Your task to perform on an android device: Clear the shopping cart on target. Search for "beats solo 3" on target, select the first entry, add it to the cart, then select checkout. Image 0: 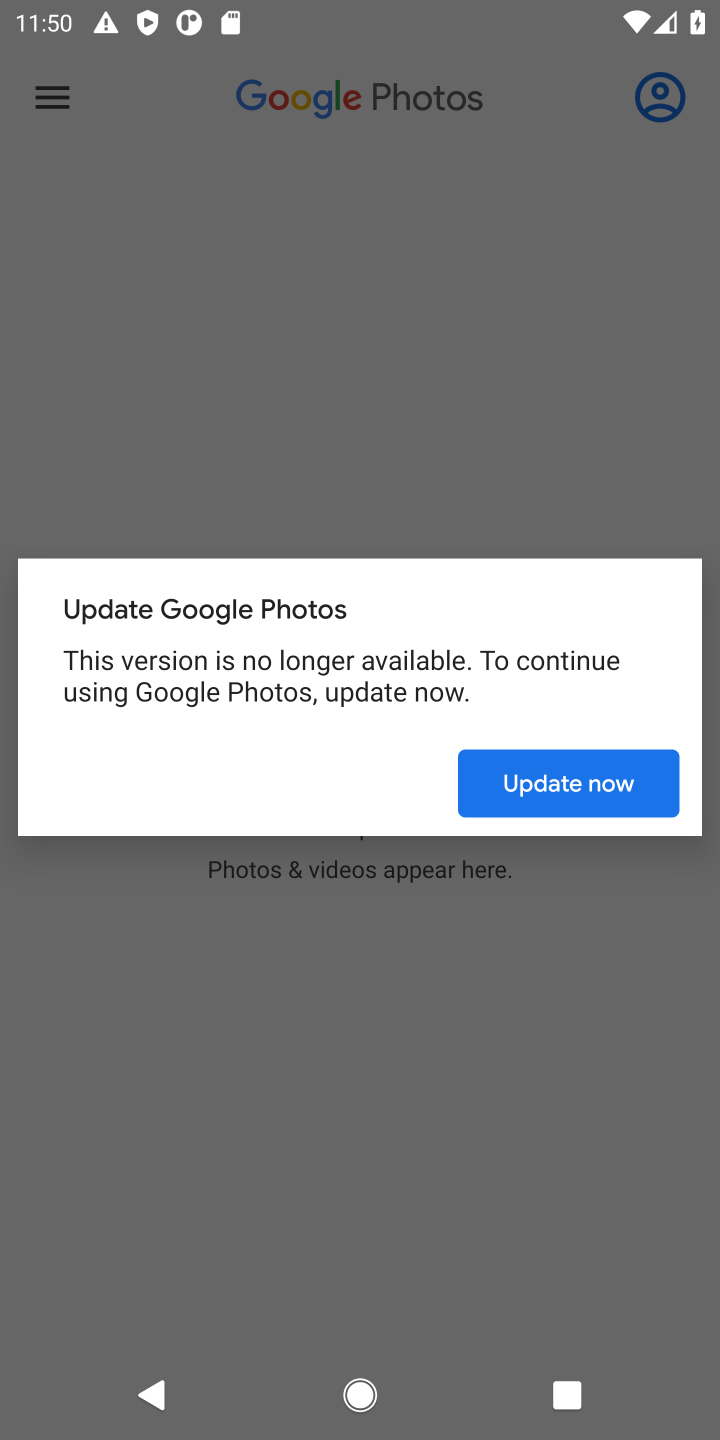
Step 0: press home button
Your task to perform on an android device: Clear the shopping cart on target. Search for "beats solo 3" on target, select the first entry, add it to the cart, then select checkout. Image 1: 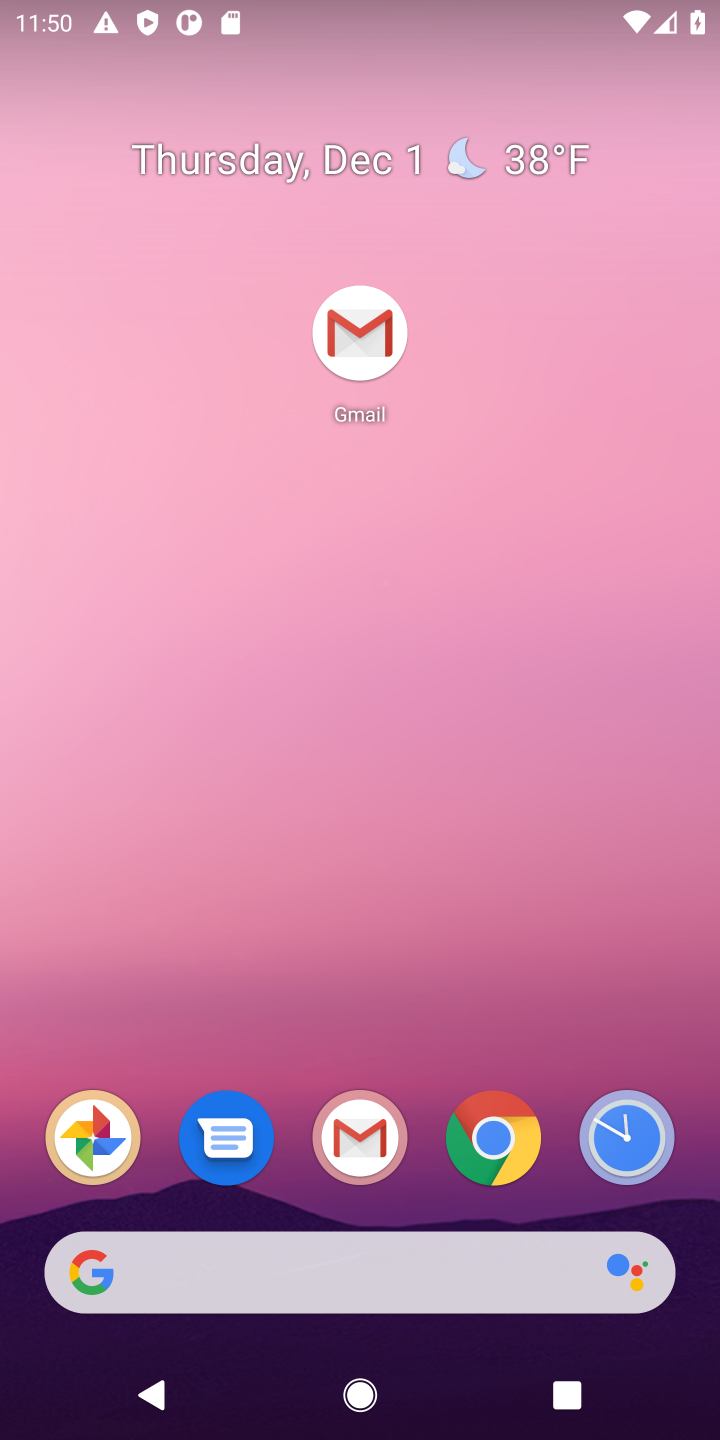
Step 1: drag from (339, 1217) to (398, 549)
Your task to perform on an android device: Clear the shopping cart on target. Search for "beats solo 3" on target, select the first entry, add it to the cart, then select checkout. Image 2: 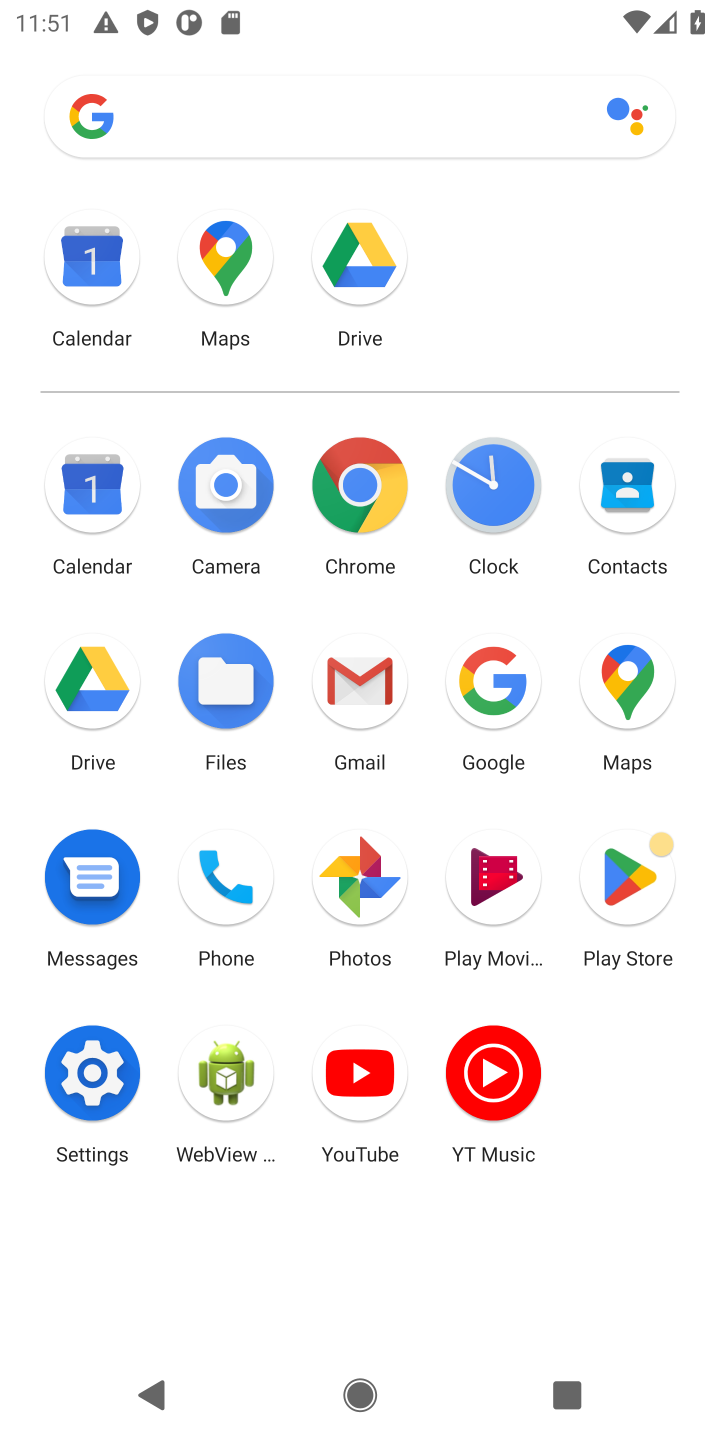
Step 2: click (497, 714)
Your task to perform on an android device: Clear the shopping cart on target. Search for "beats solo 3" on target, select the first entry, add it to the cart, then select checkout. Image 3: 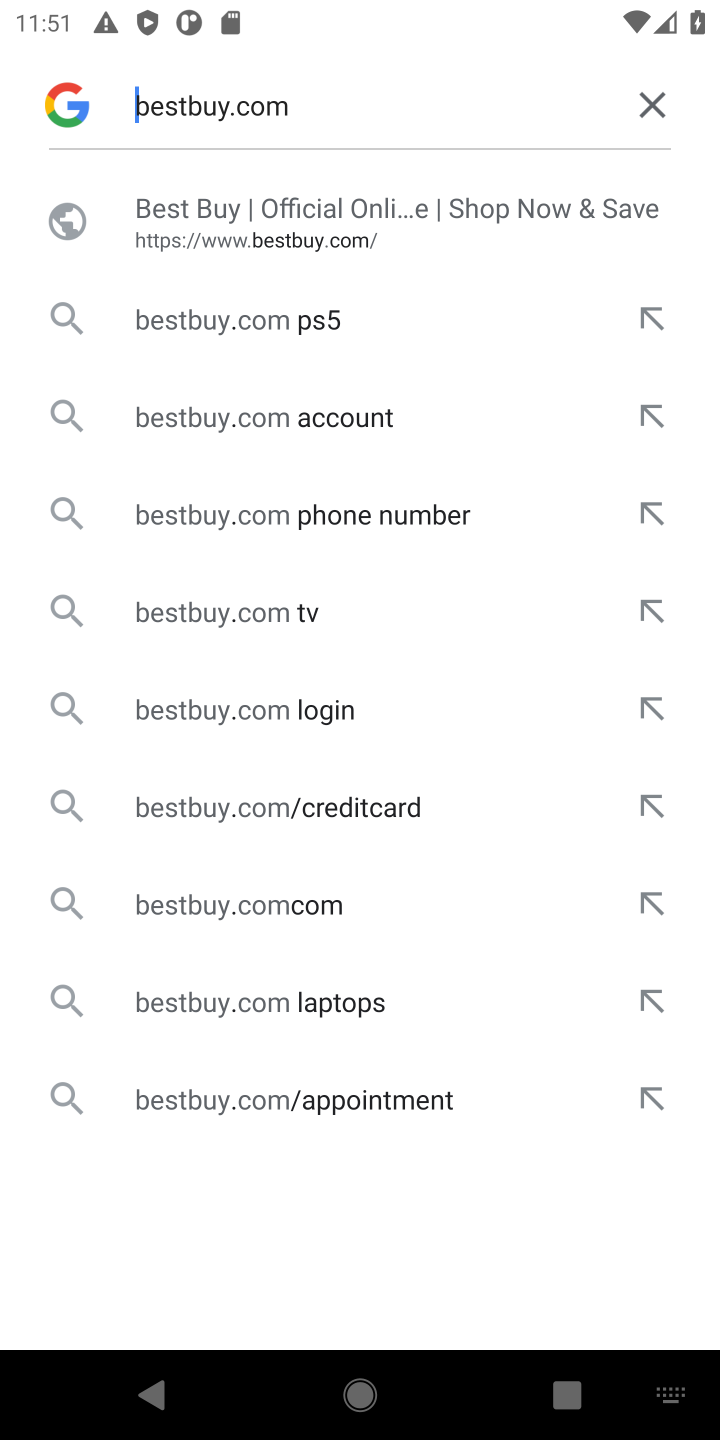
Step 3: click (704, 142)
Your task to perform on an android device: Clear the shopping cart on target. Search for "beats solo 3" on target, select the first entry, add it to the cart, then select checkout. Image 4: 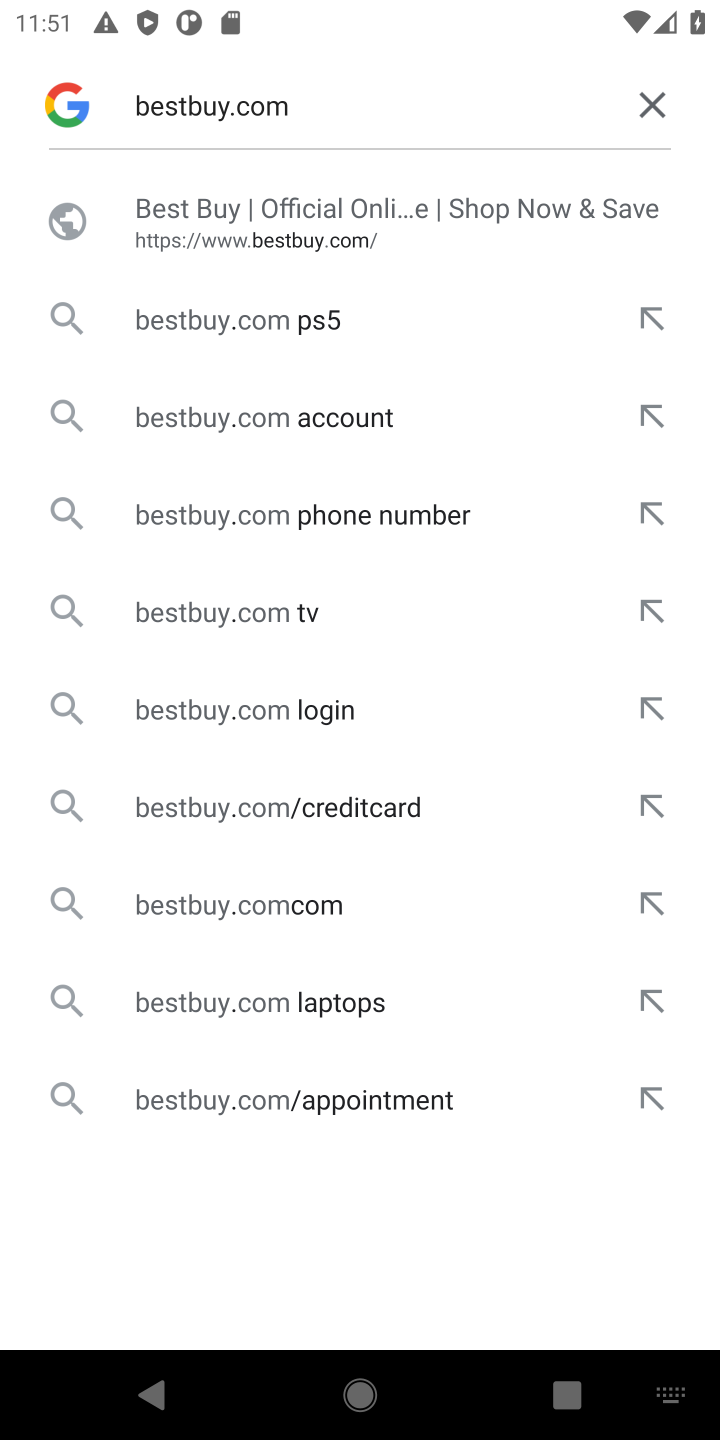
Step 4: click (665, 110)
Your task to perform on an android device: Clear the shopping cart on target. Search for "beats solo 3" on target, select the first entry, add it to the cart, then select checkout. Image 5: 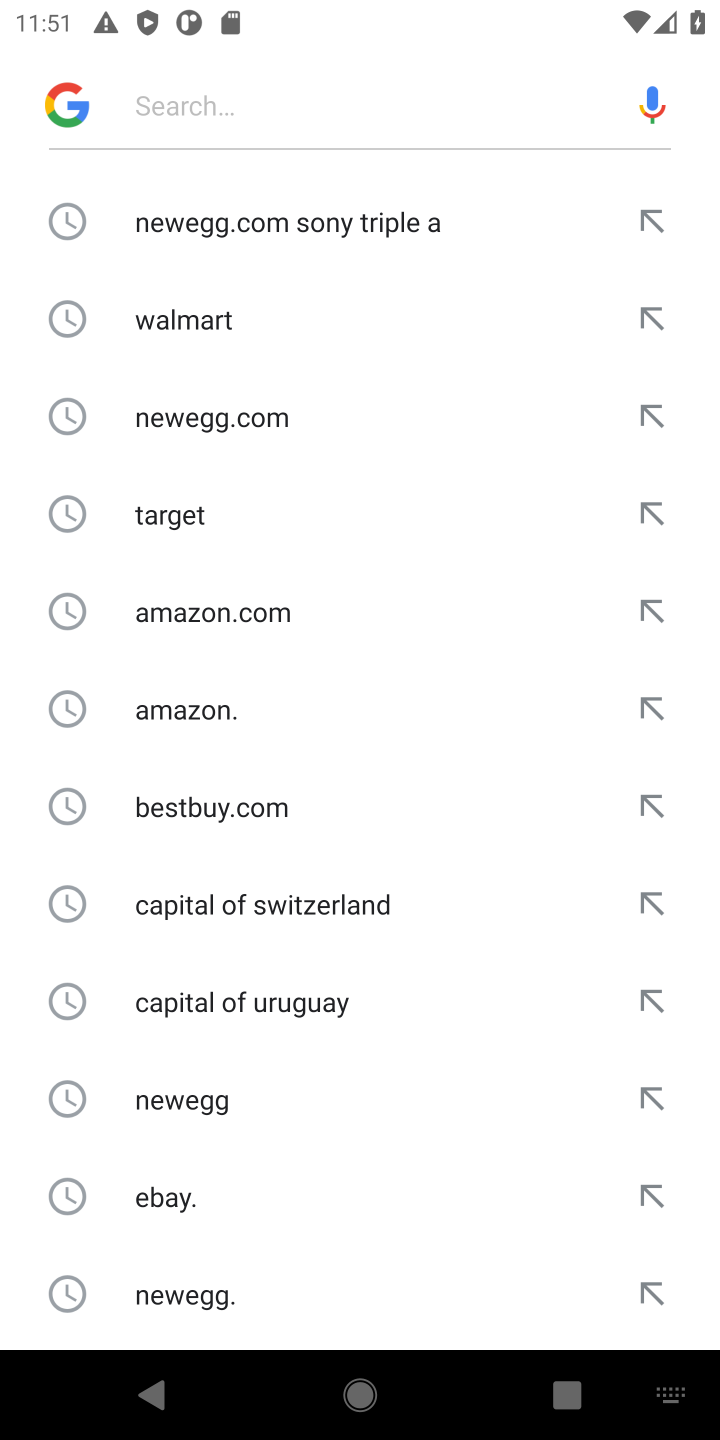
Step 5: click (195, 518)
Your task to perform on an android device: Clear the shopping cart on target. Search for "beats solo 3" on target, select the first entry, add it to the cart, then select checkout. Image 6: 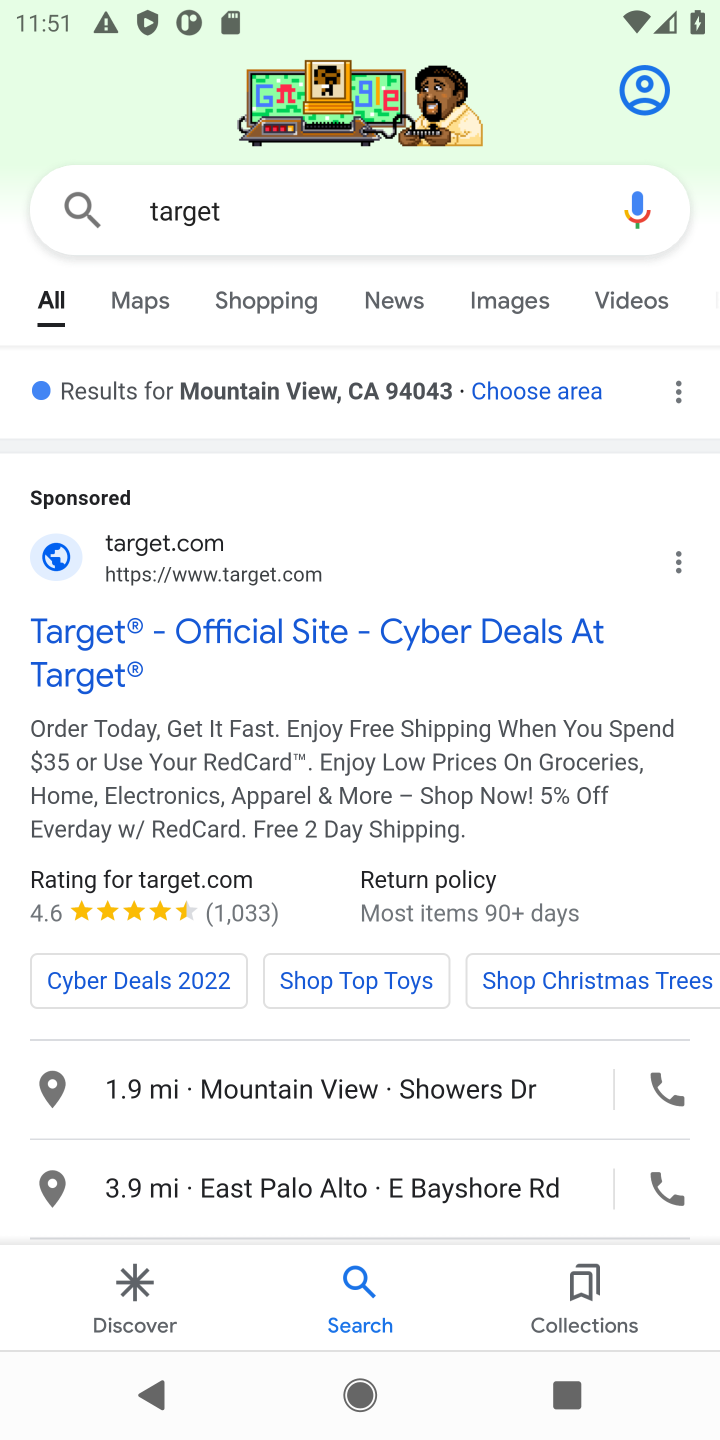
Step 6: click (81, 681)
Your task to perform on an android device: Clear the shopping cart on target. Search for "beats solo 3" on target, select the first entry, add it to the cart, then select checkout. Image 7: 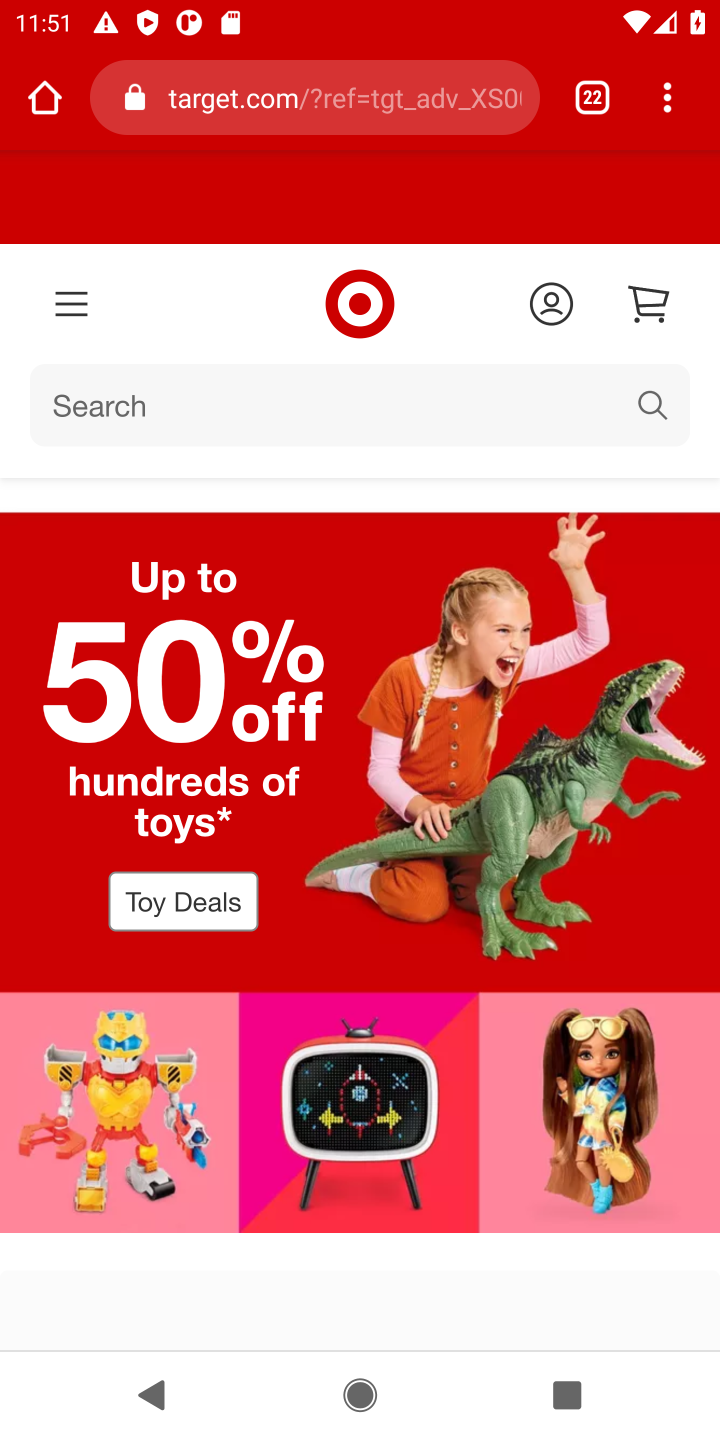
Step 7: click (669, 301)
Your task to perform on an android device: Clear the shopping cart on target. Search for "beats solo 3" on target, select the first entry, add it to the cart, then select checkout. Image 8: 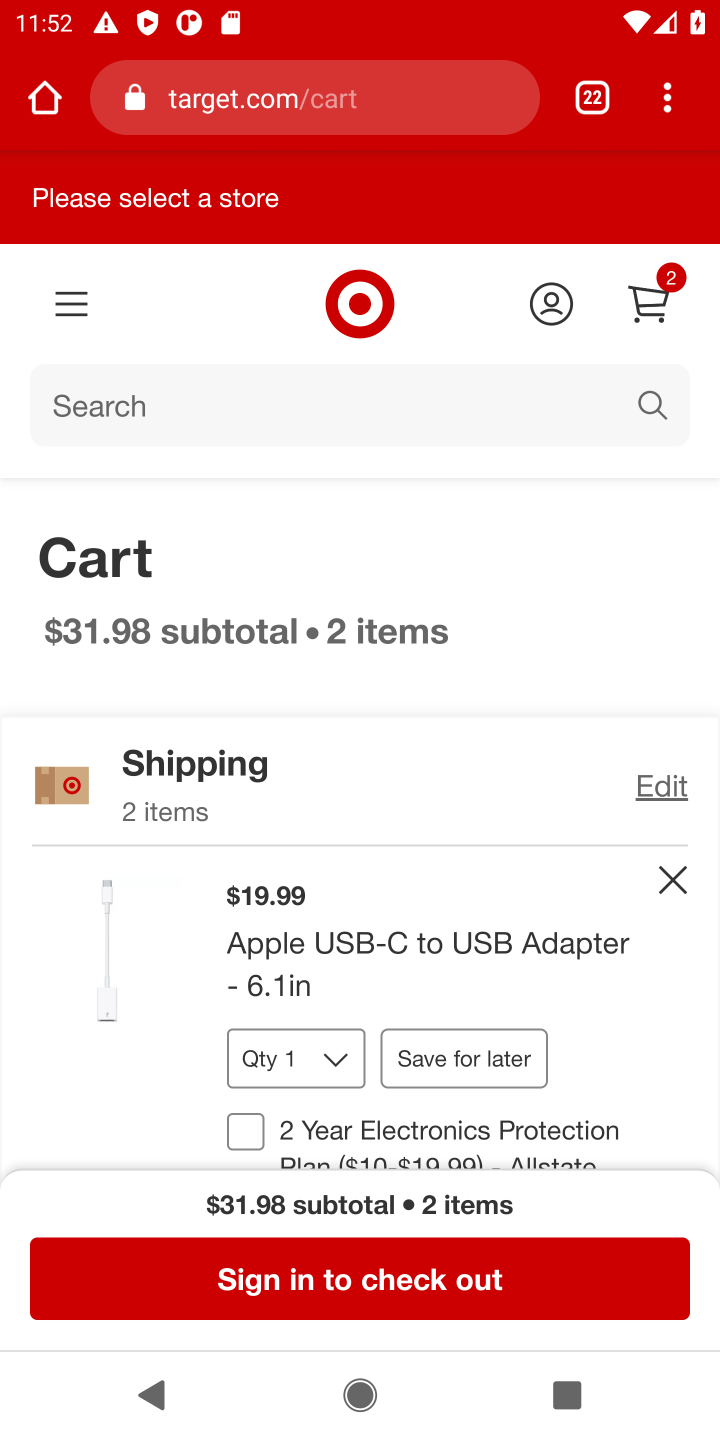
Step 8: drag from (438, 934) to (438, 683)
Your task to perform on an android device: Clear the shopping cart on target. Search for "beats solo 3" on target, select the first entry, add it to the cart, then select checkout. Image 9: 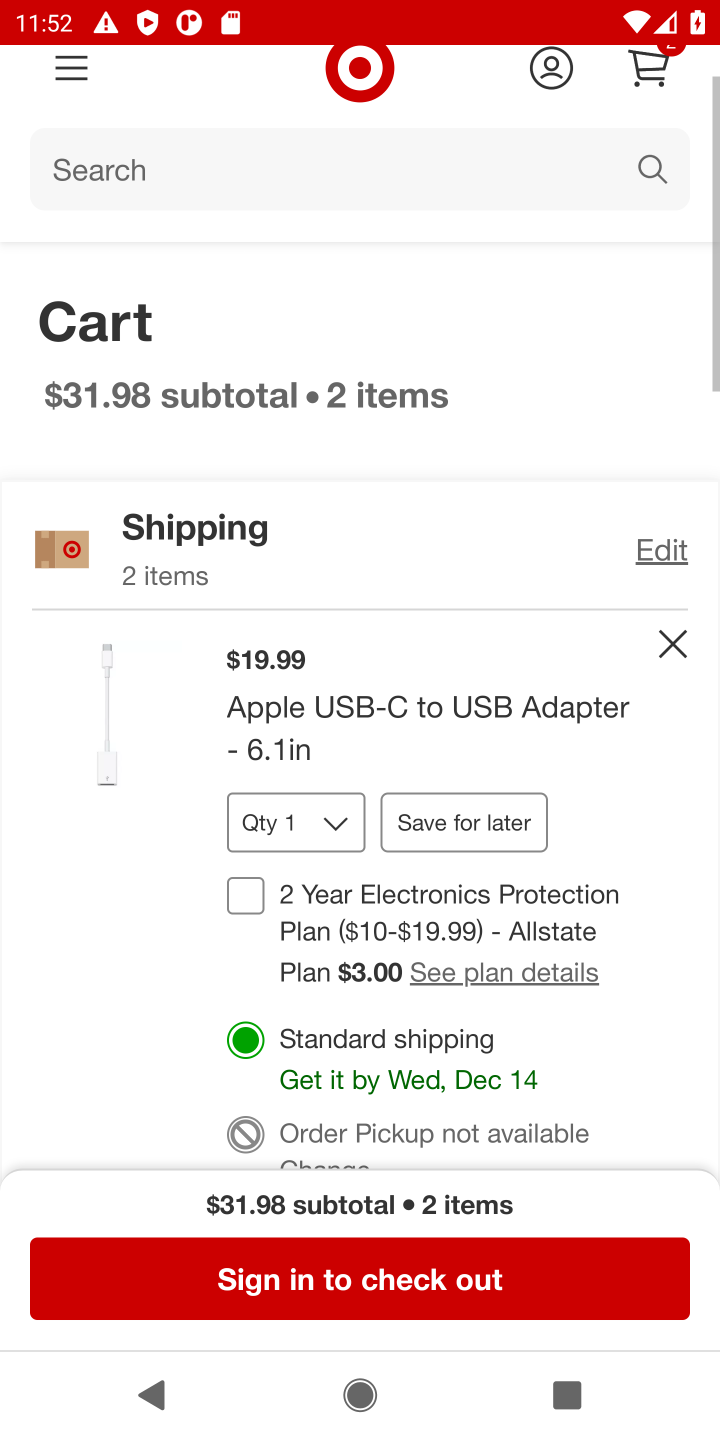
Step 9: click (436, 681)
Your task to perform on an android device: Clear the shopping cart on target. Search for "beats solo 3" on target, select the first entry, add it to the cart, then select checkout. Image 10: 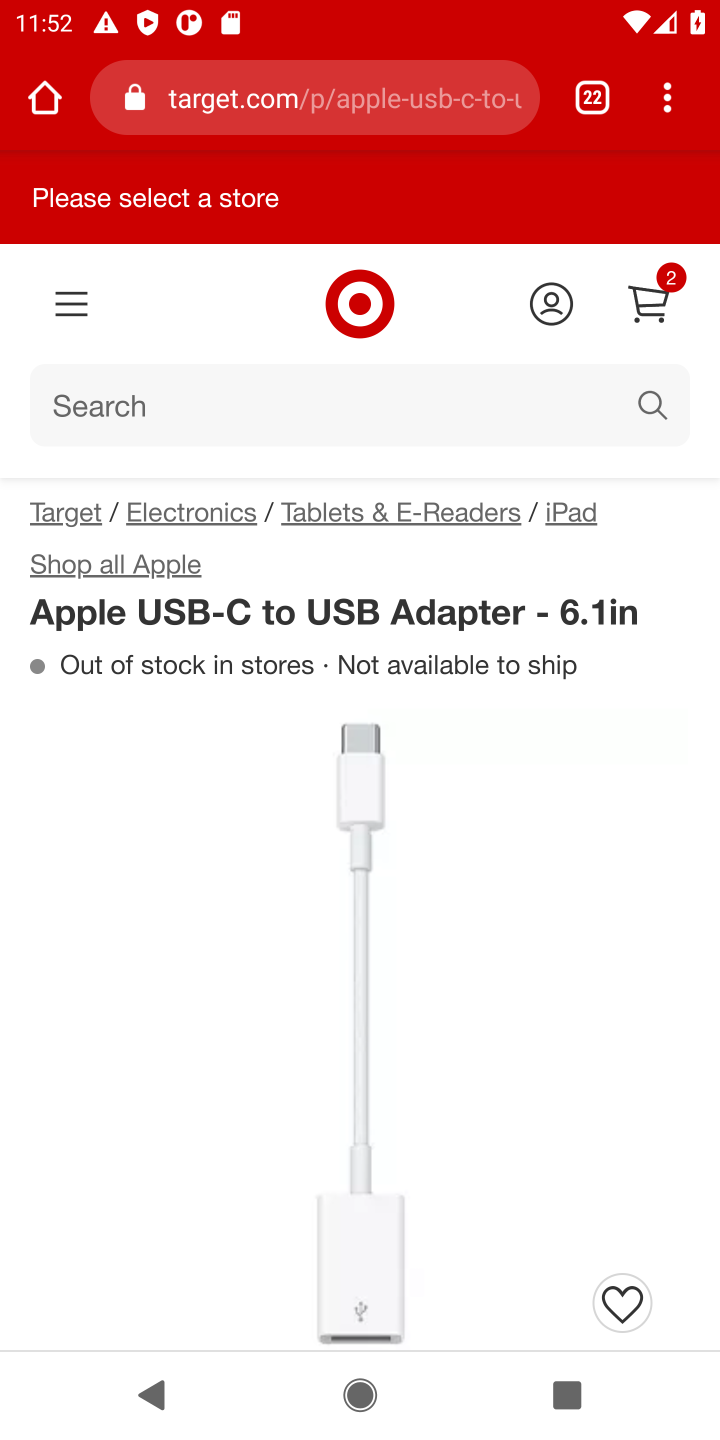
Step 10: press back button
Your task to perform on an android device: Clear the shopping cart on target. Search for "beats solo 3" on target, select the first entry, add it to the cart, then select checkout. Image 11: 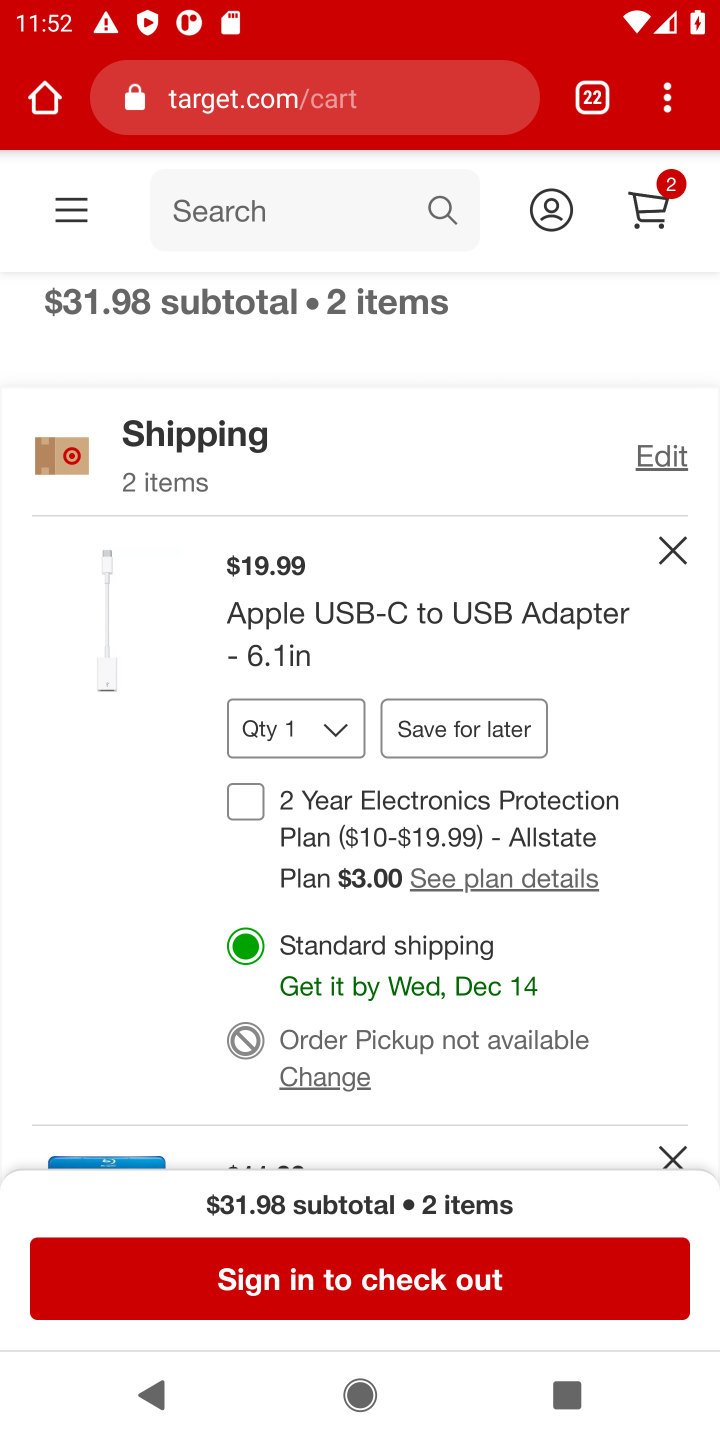
Step 11: click (671, 546)
Your task to perform on an android device: Clear the shopping cart on target. Search for "beats solo 3" on target, select the first entry, add it to the cart, then select checkout. Image 12: 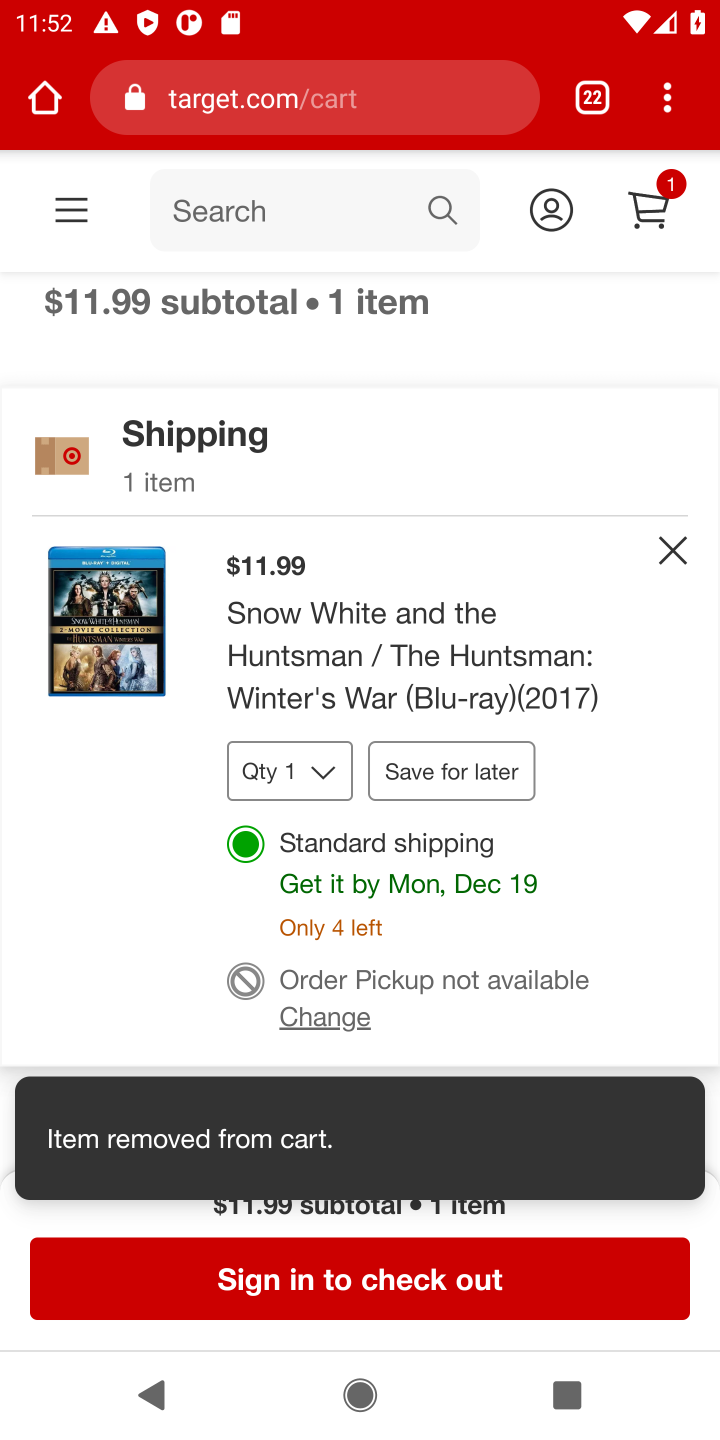
Step 12: click (671, 560)
Your task to perform on an android device: Clear the shopping cart on target. Search for "beats solo 3" on target, select the first entry, add it to the cart, then select checkout. Image 13: 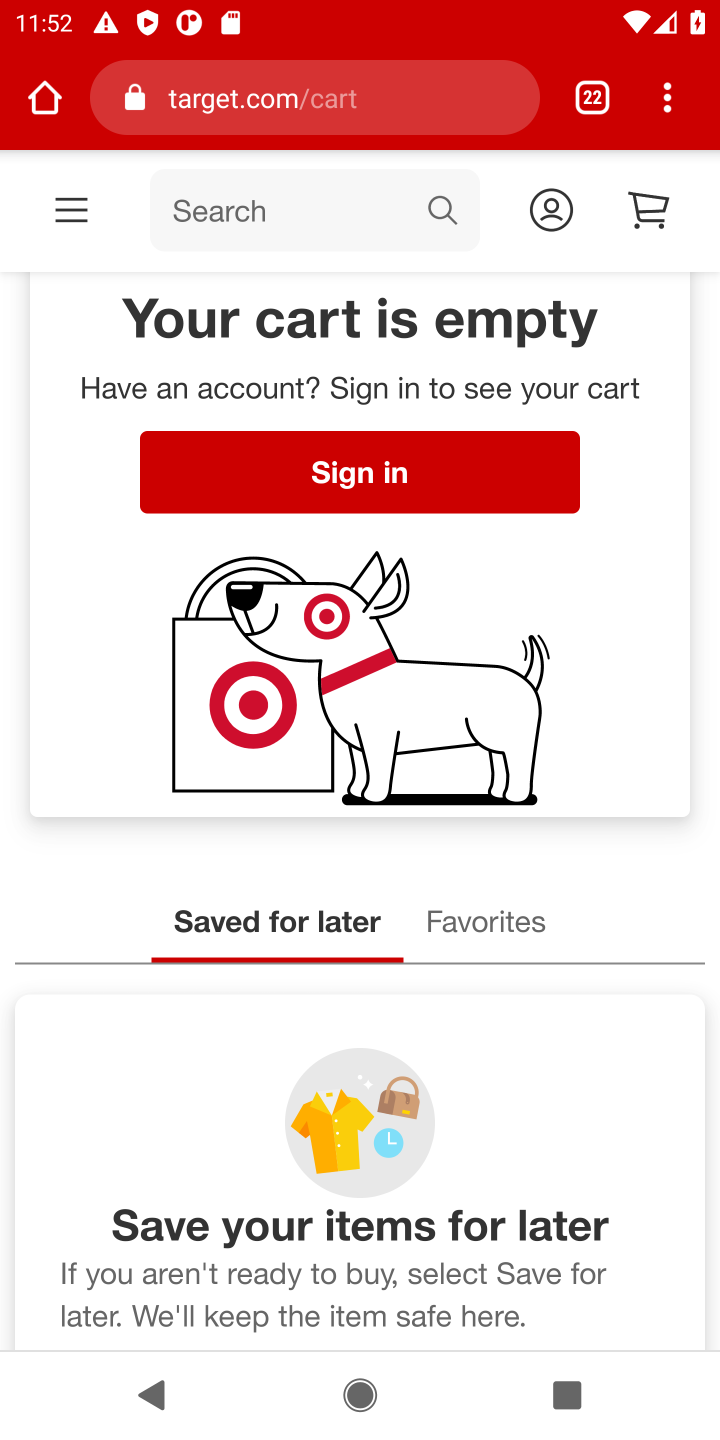
Step 13: click (355, 231)
Your task to perform on an android device: Clear the shopping cart on target. Search for "beats solo 3" on target, select the first entry, add it to the cart, then select checkout. Image 14: 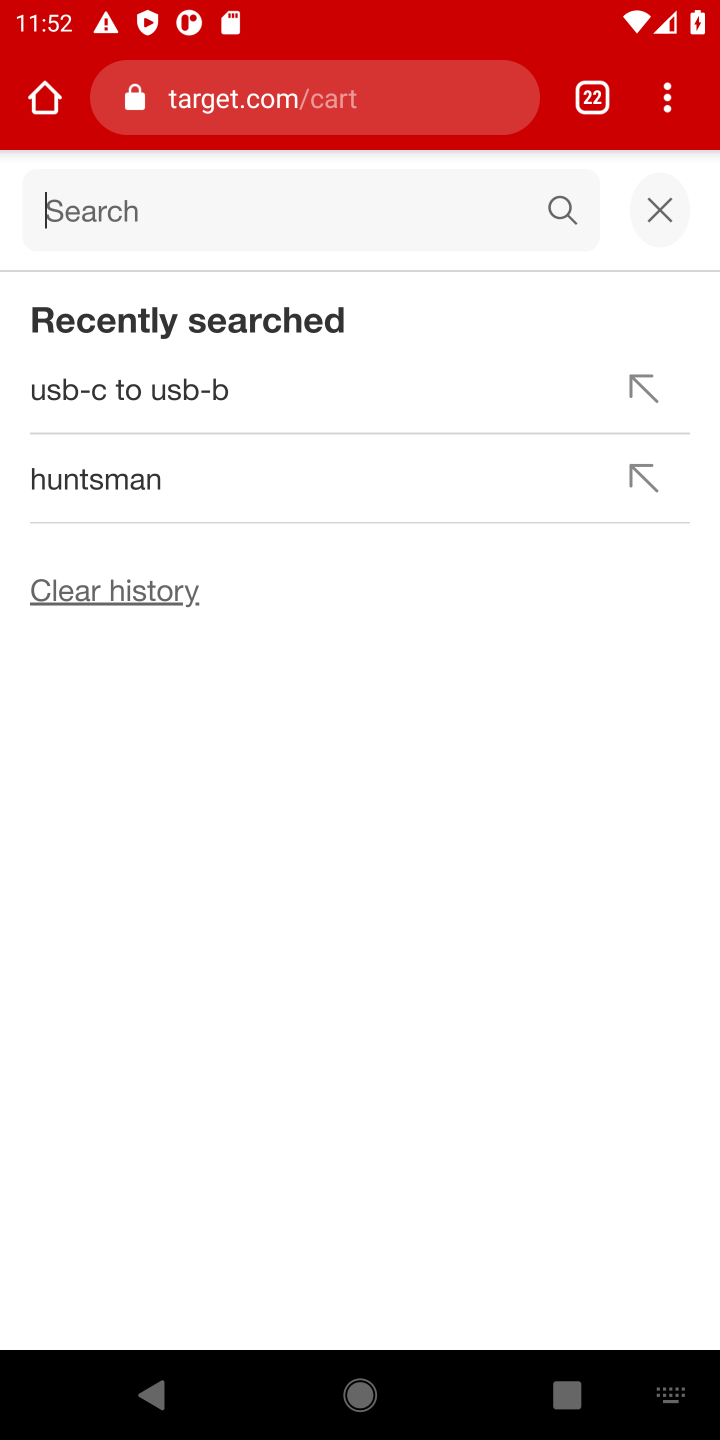
Step 14: type "beats solo 3"
Your task to perform on an android device: Clear the shopping cart on target. Search for "beats solo 3" on target, select the first entry, add it to the cart, then select checkout. Image 15: 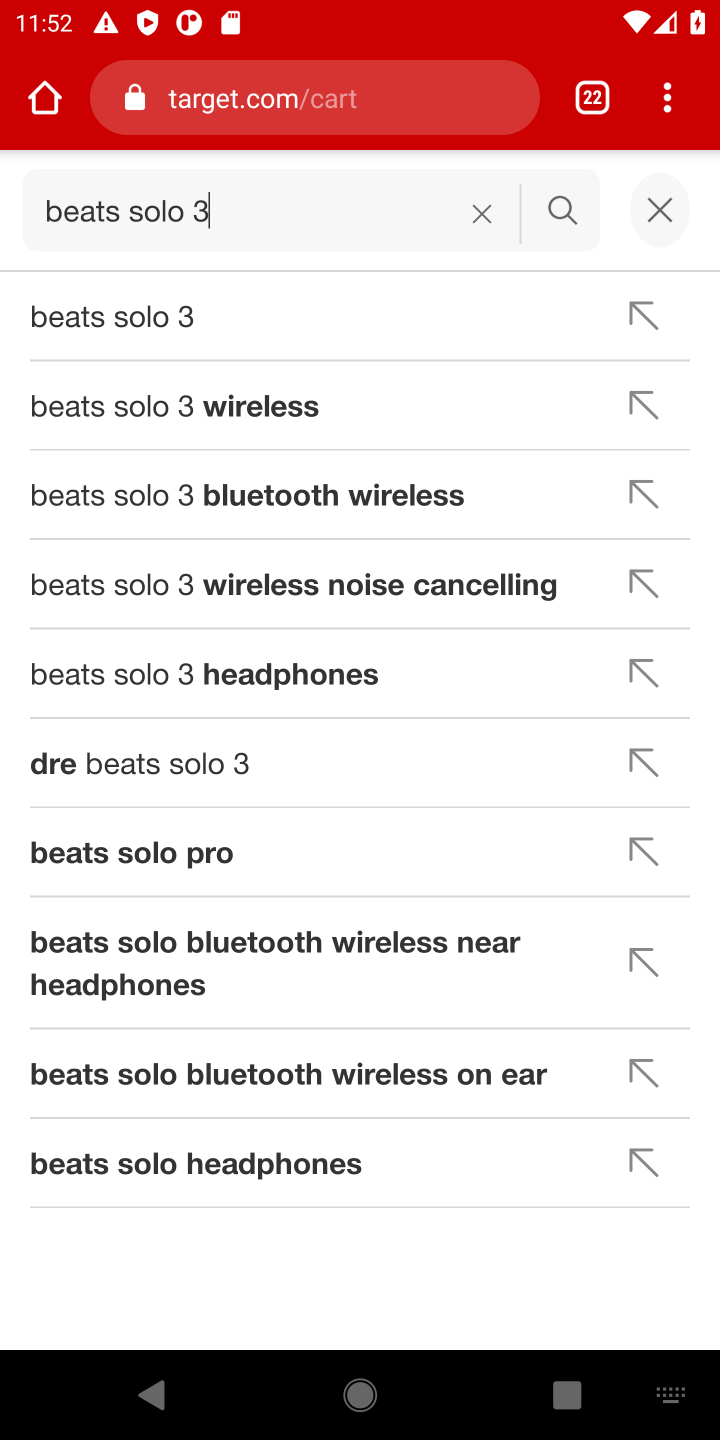
Step 15: click (350, 324)
Your task to perform on an android device: Clear the shopping cart on target. Search for "beats solo 3" on target, select the first entry, add it to the cart, then select checkout. Image 16: 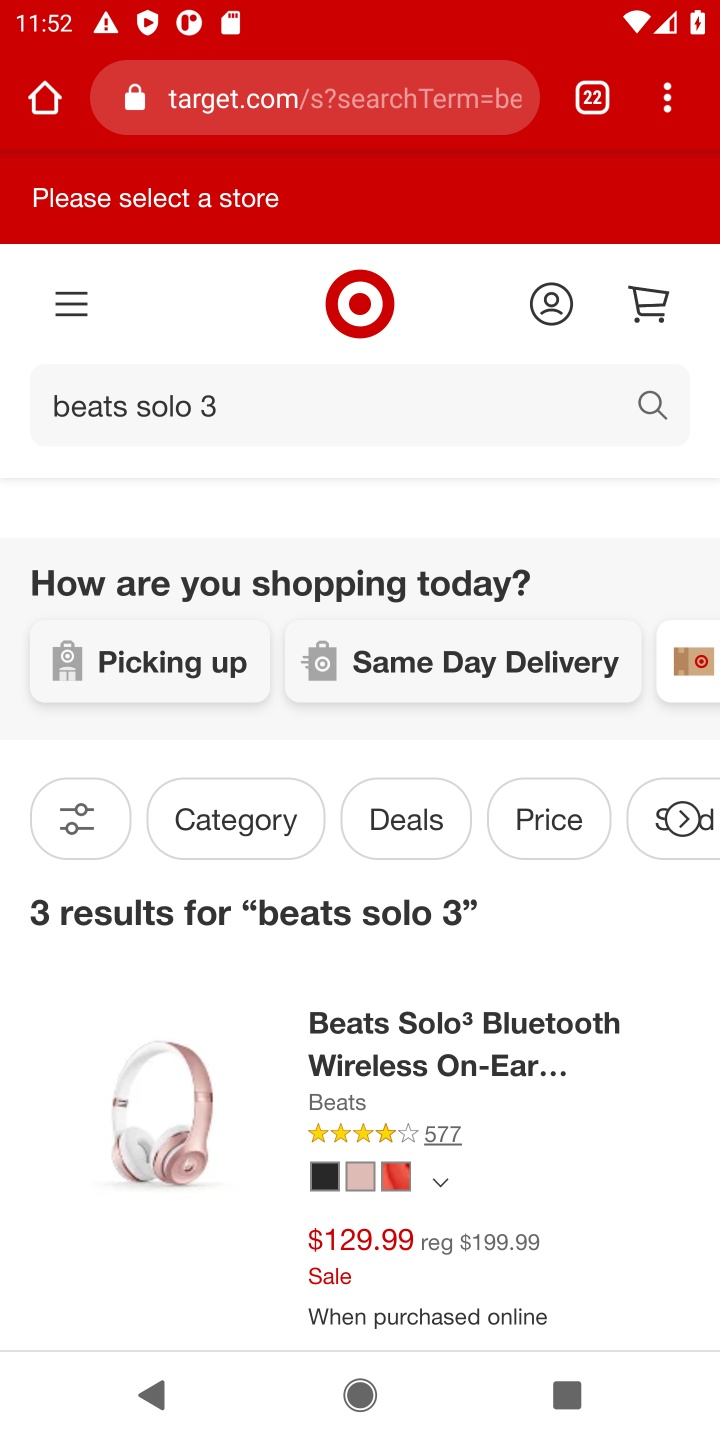
Step 16: click (415, 1073)
Your task to perform on an android device: Clear the shopping cart on target. Search for "beats solo 3" on target, select the first entry, add it to the cart, then select checkout. Image 17: 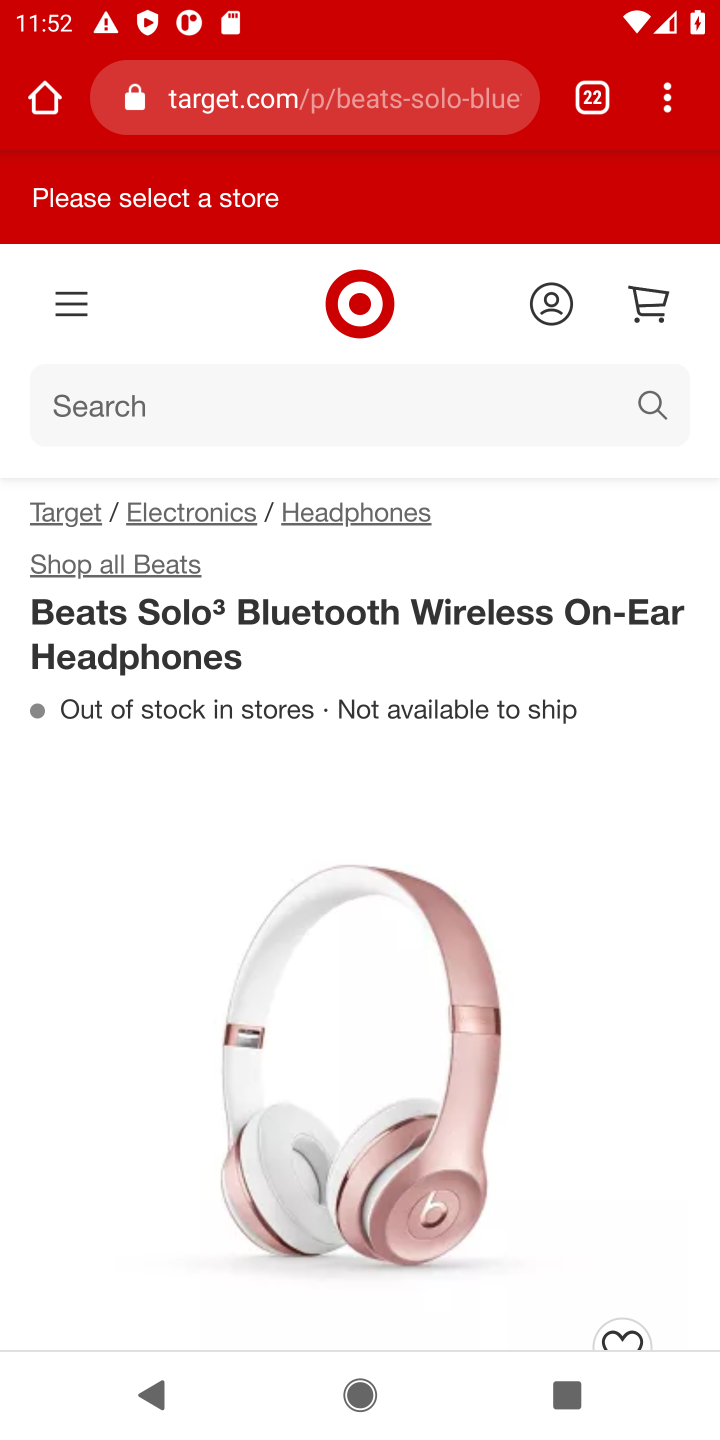
Step 17: drag from (426, 1140) to (464, 667)
Your task to perform on an android device: Clear the shopping cart on target. Search for "beats solo 3" on target, select the first entry, add it to the cart, then select checkout. Image 18: 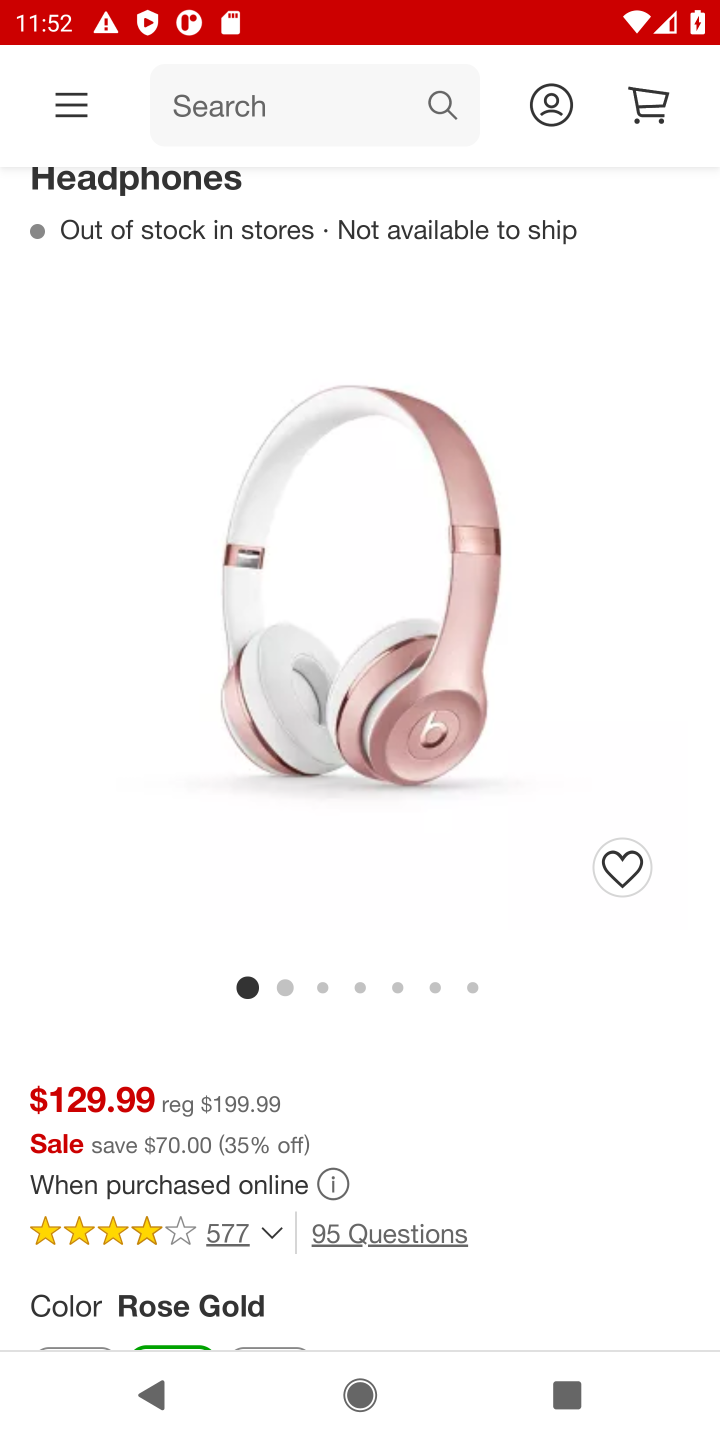
Step 18: drag from (474, 1055) to (487, 761)
Your task to perform on an android device: Clear the shopping cart on target. Search for "beats solo 3" on target, select the first entry, add it to the cart, then select checkout. Image 19: 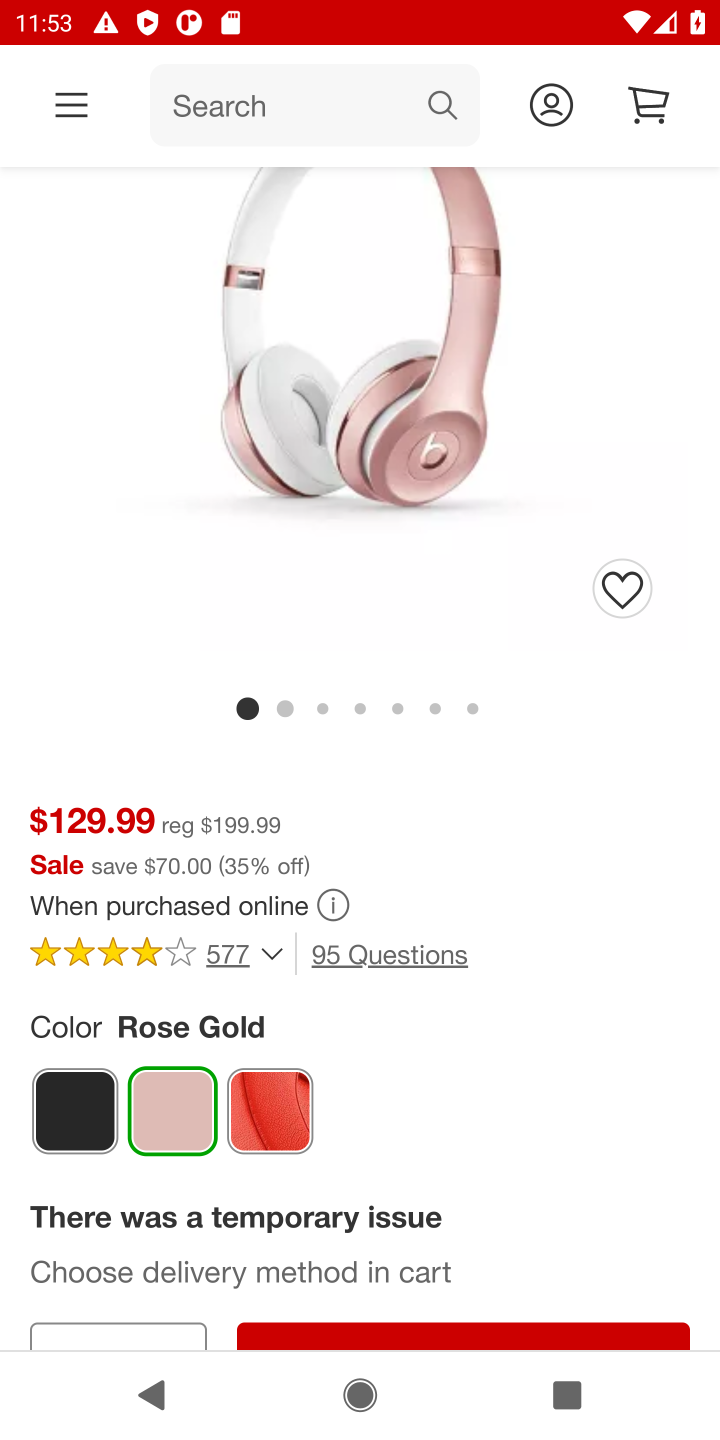
Step 19: drag from (497, 977) to (534, 582)
Your task to perform on an android device: Clear the shopping cart on target. Search for "beats solo 3" on target, select the first entry, add it to the cart, then select checkout. Image 20: 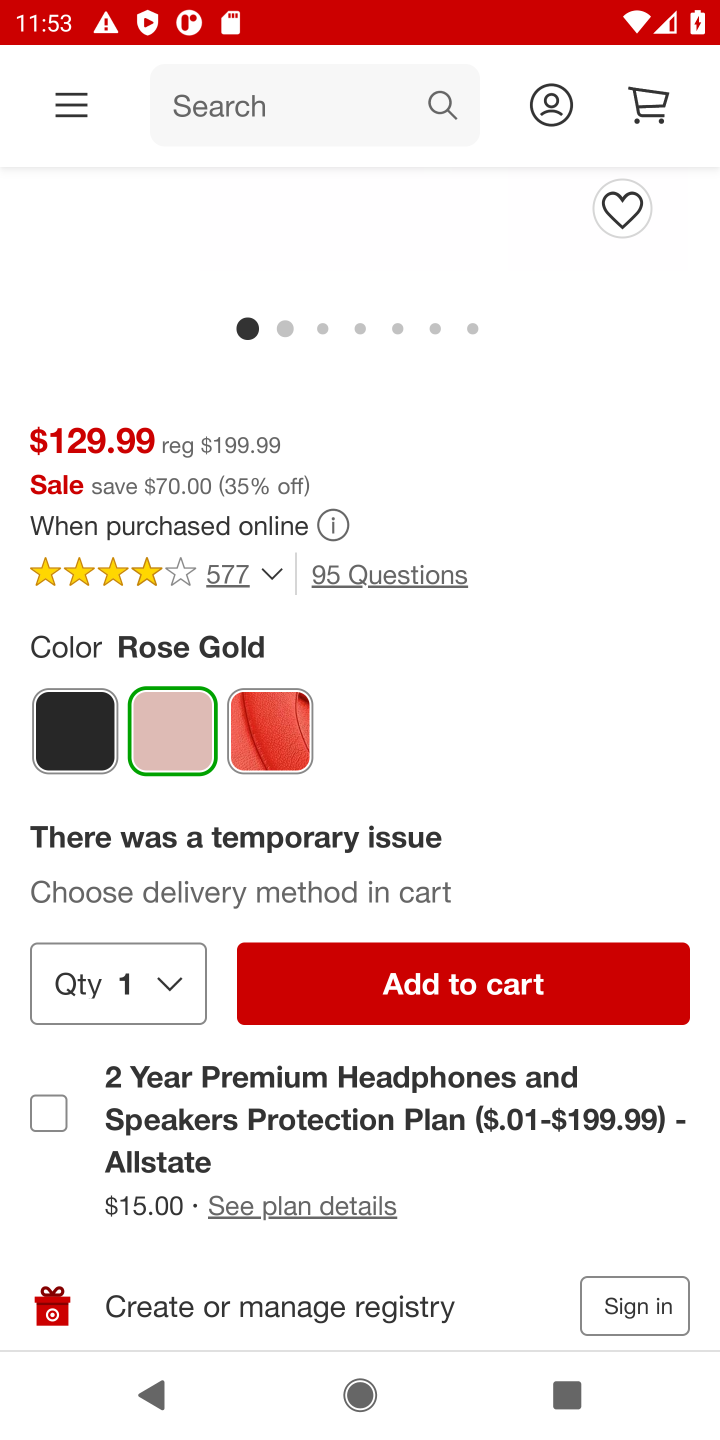
Step 20: click (474, 990)
Your task to perform on an android device: Clear the shopping cart on target. Search for "beats solo 3" on target, select the first entry, add it to the cart, then select checkout. Image 21: 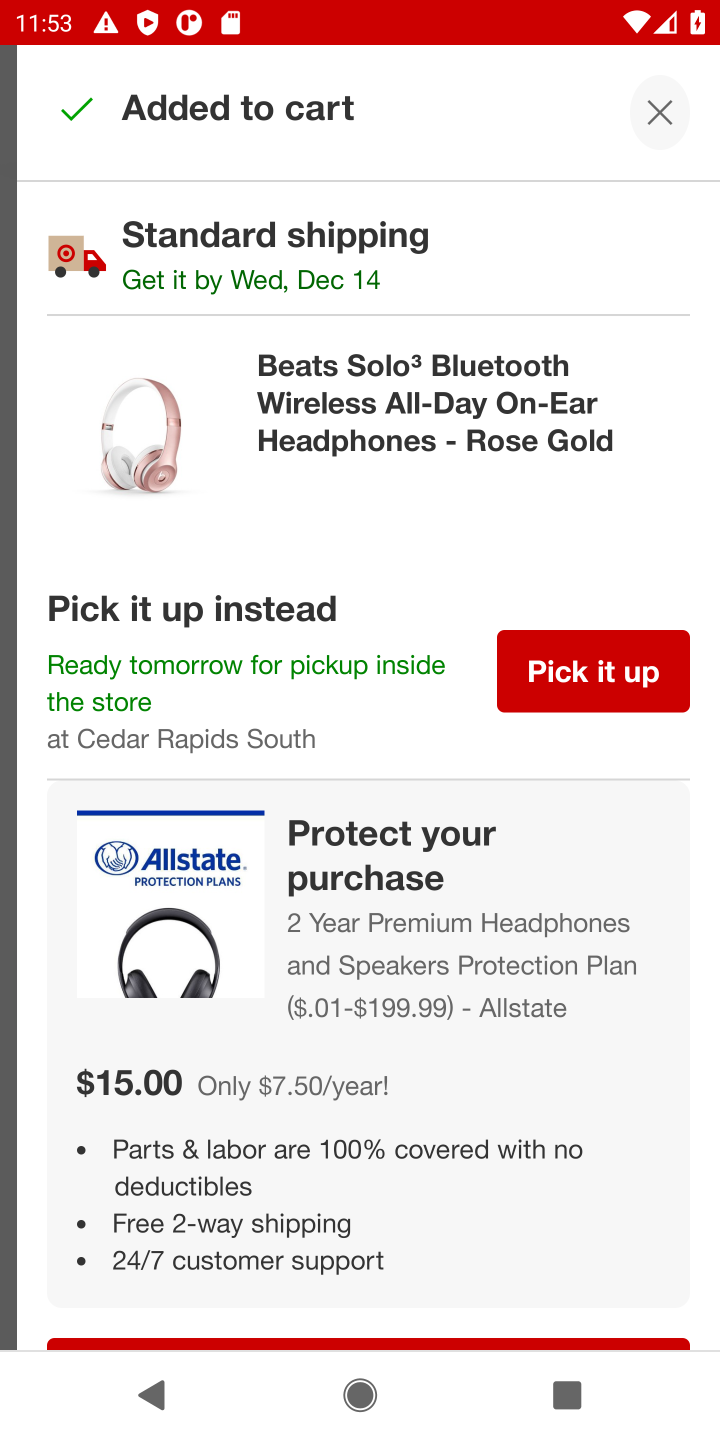
Step 21: click (470, 990)
Your task to perform on an android device: Clear the shopping cart on target. Search for "beats solo 3" on target, select the first entry, add it to the cart, then select checkout. Image 22: 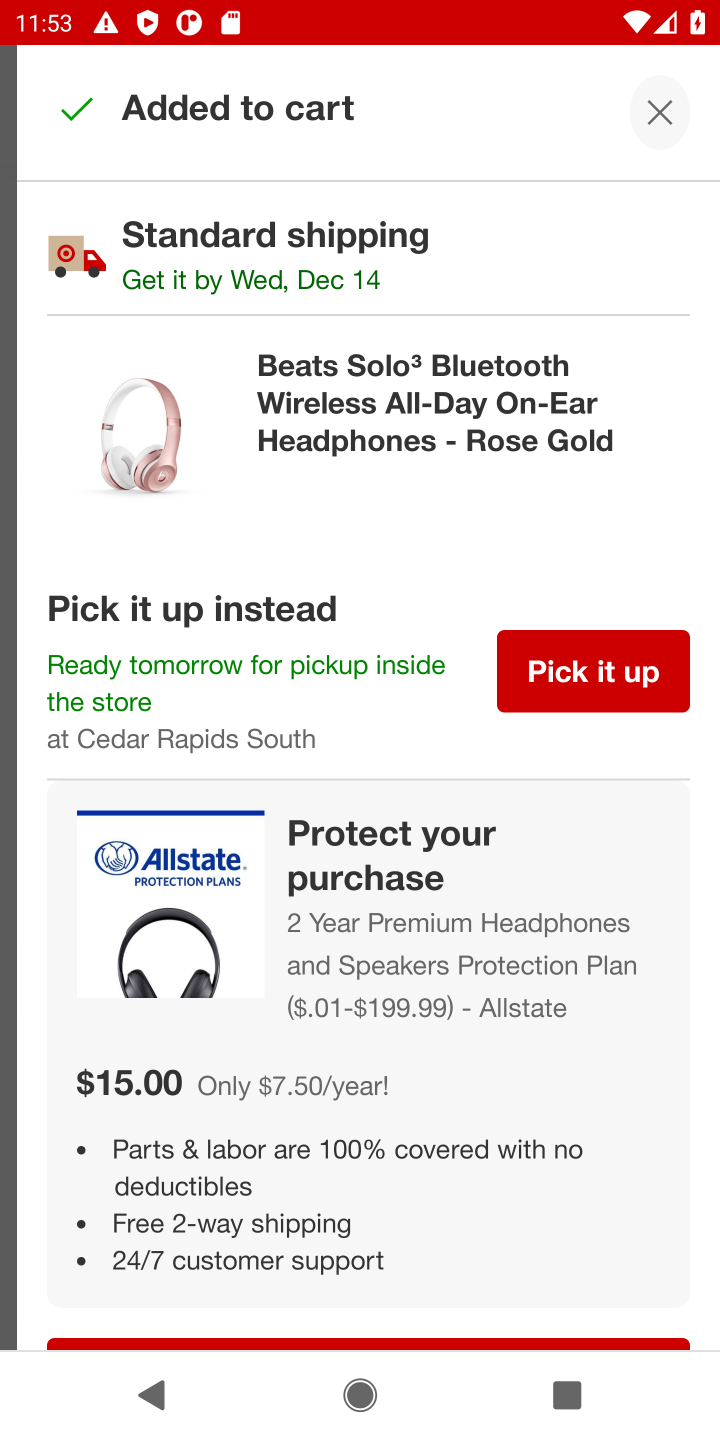
Step 22: drag from (513, 710) to (529, 344)
Your task to perform on an android device: Clear the shopping cart on target. Search for "beats solo 3" on target, select the first entry, add it to the cart, then select checkout. Image 23: 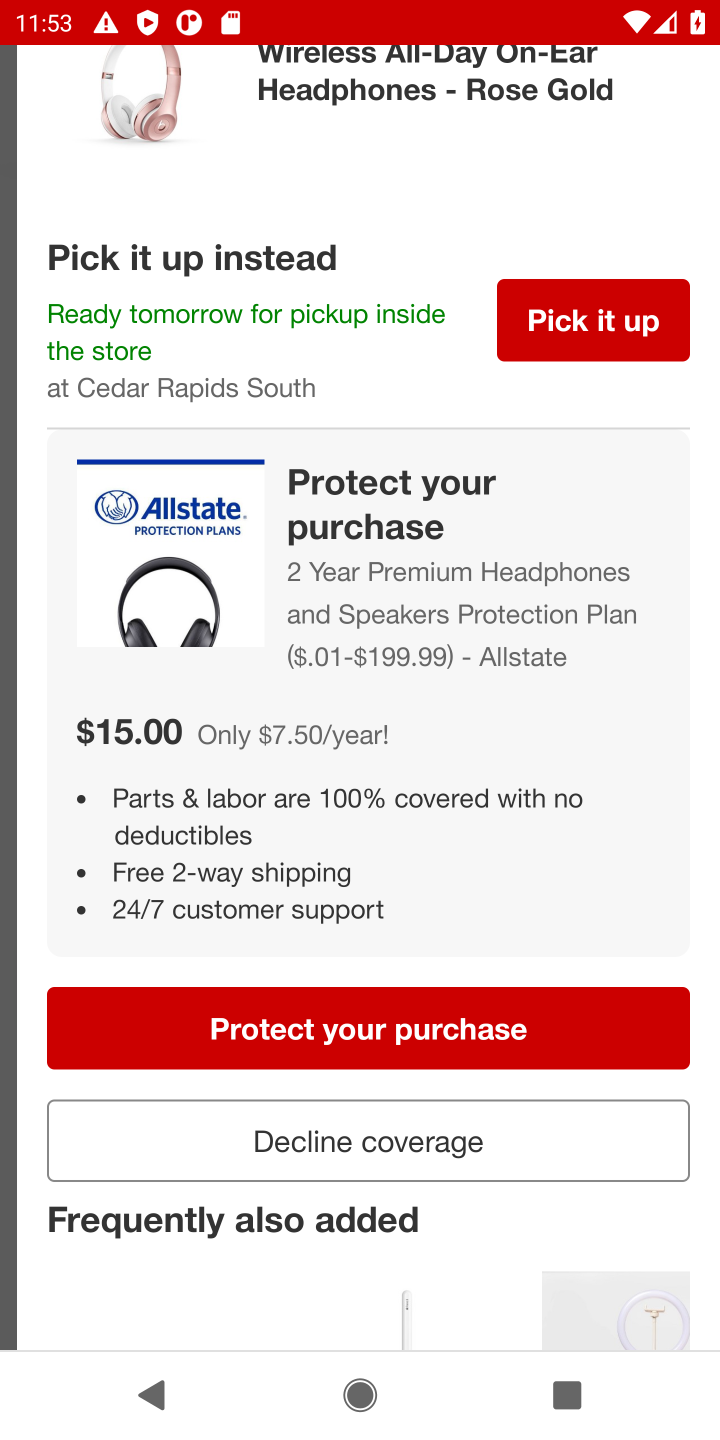
Step 23: click (502, 1148)
Your task to perform on an android device: Clear the shopping cart on target. Search for "beats solo 3" on target, select the first entry, add it to the cart, then select checkout. Image 24: 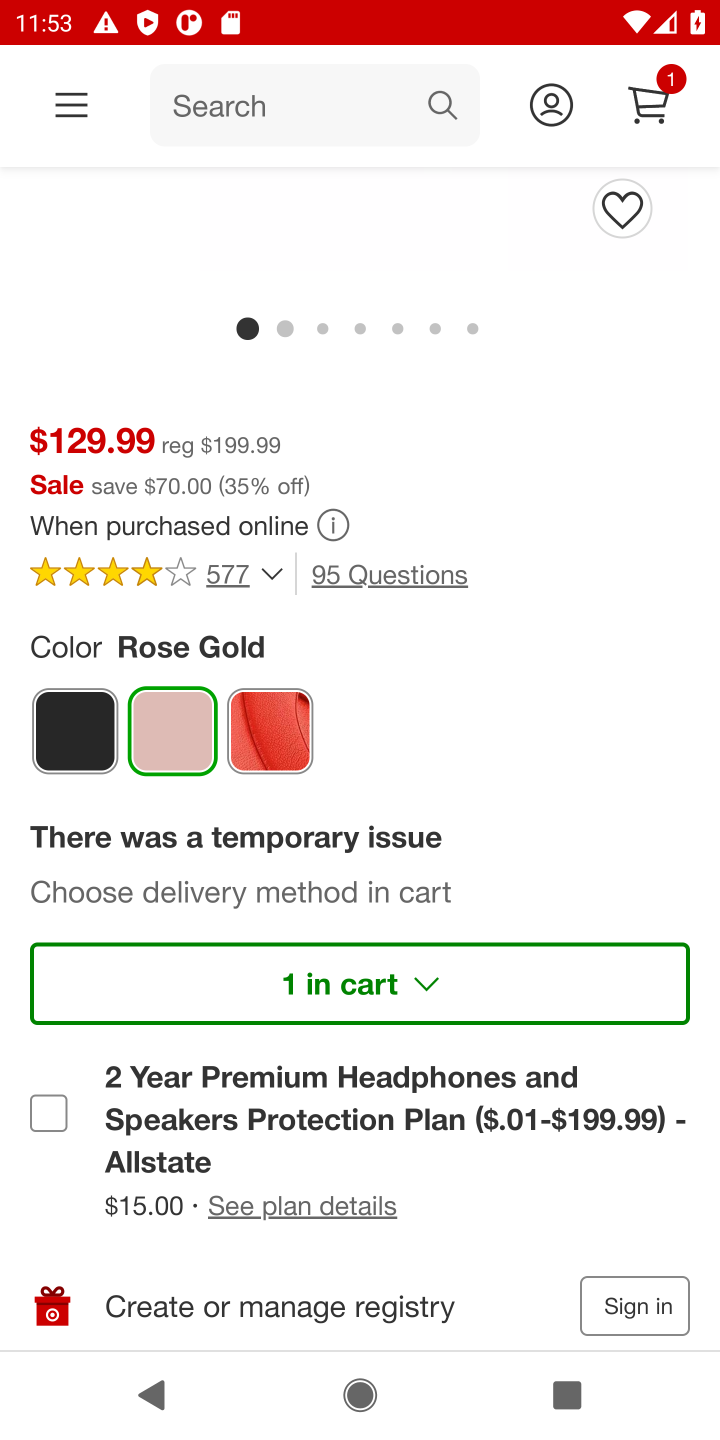
Step 24: drag from (507, 1085) to (521, 683)
Your task to perform on an android device: Clear the shopping cart on target. Search for "beats solo 3" on target, select the first entry, add it to the cart, then select checkout. Image 25: 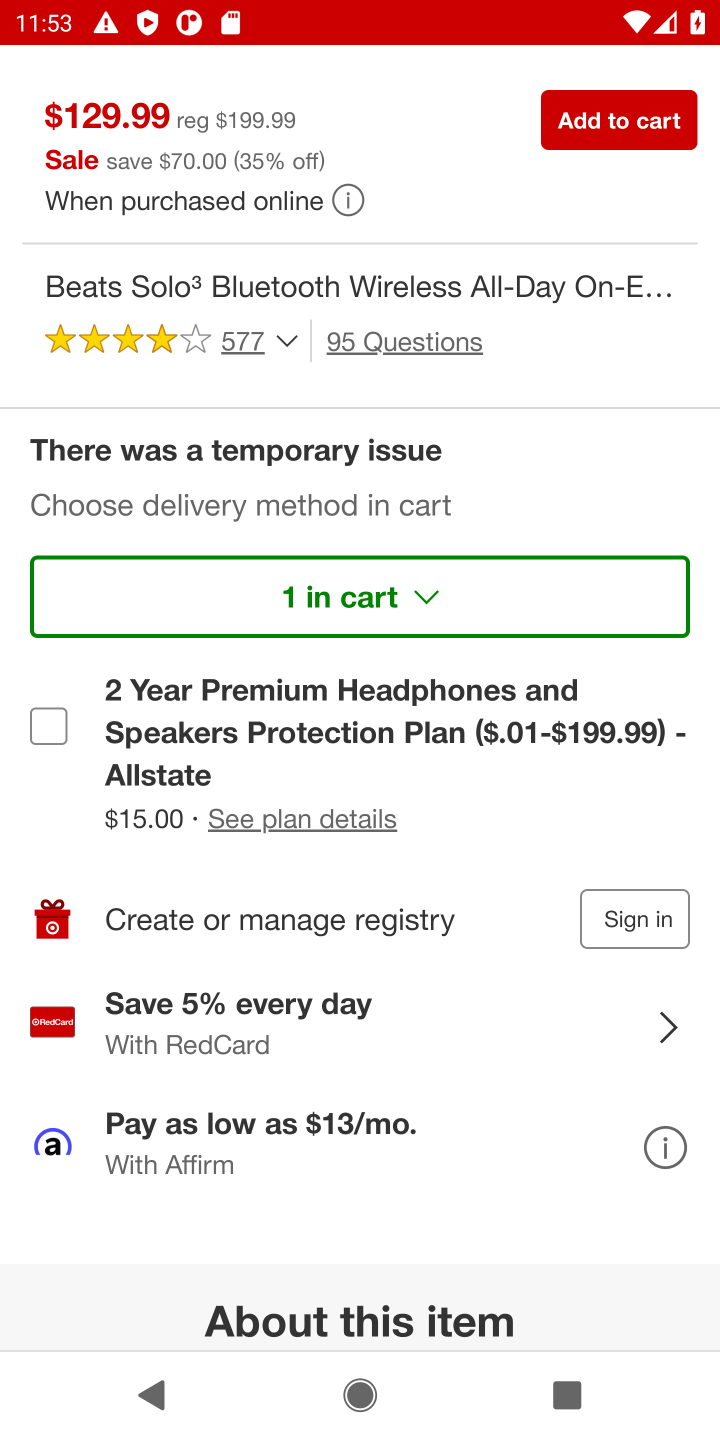
Step 25: drag from (572, 350) to (591, 624)
Your task to perform on an android device: Clear the shopping cart on target. Search for "beats solo 3" on target, select the first entry, add it to the cart, then select checkout. Image 26: 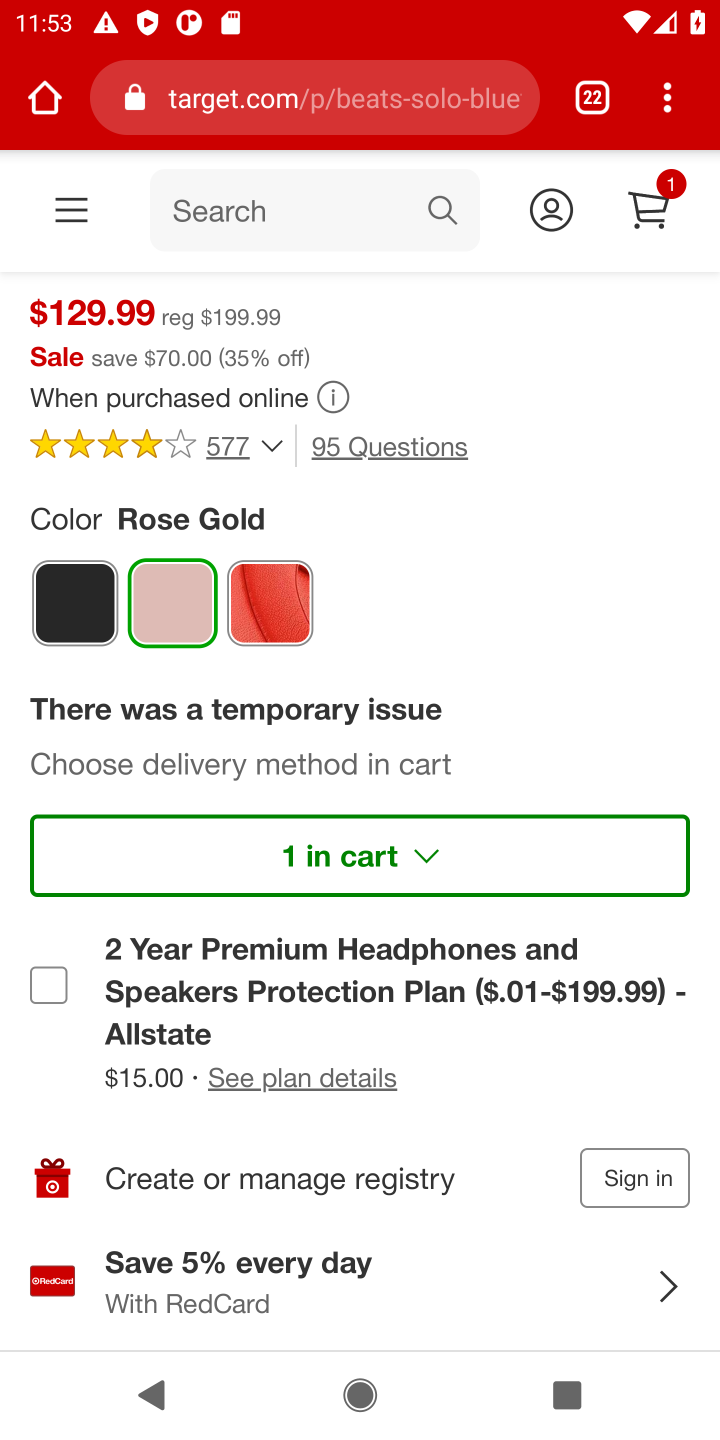
Step 26: click (650, 209)
Your task to perform on an android device: Clear the shopping cart on target. Search for "beats solo 3" on target, select the first entry, add it to the cart, then select checkout. Image 27: 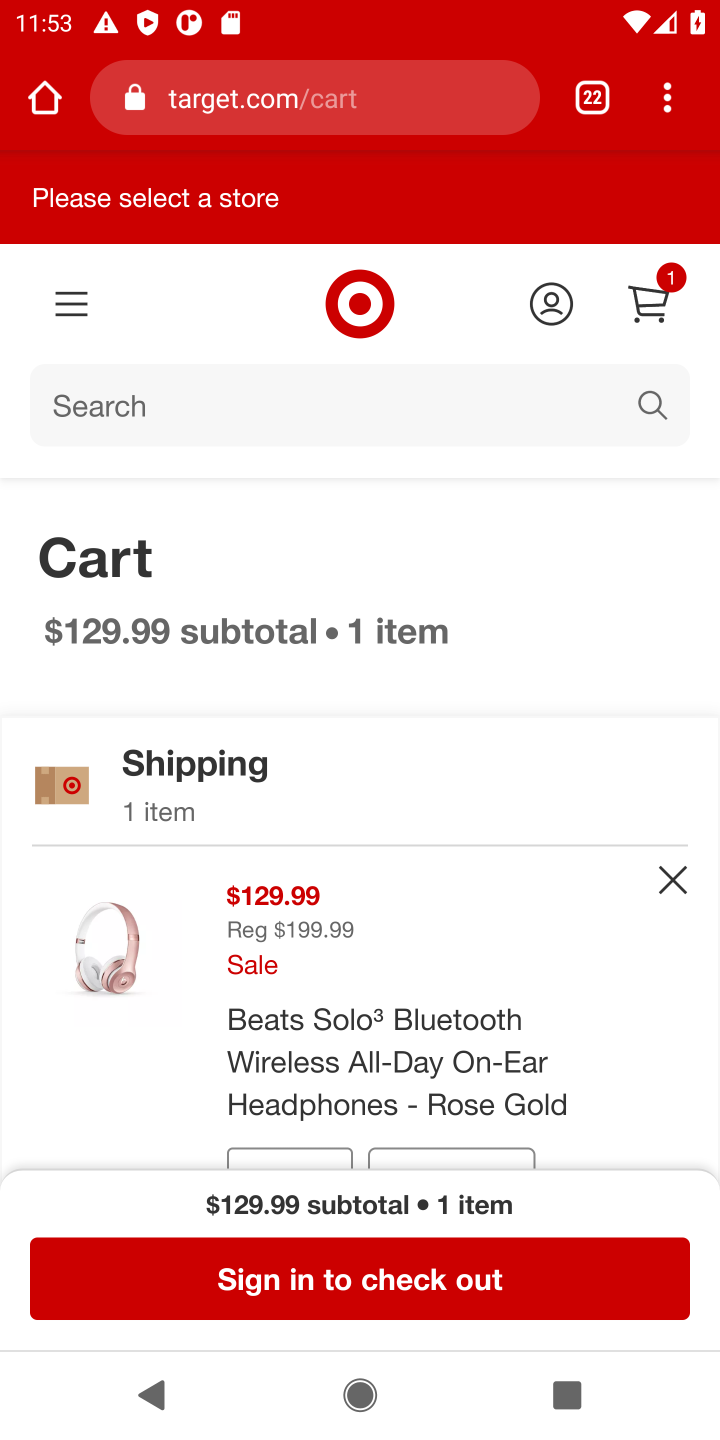
Step 27: drag from (389, 1028) to (421, 805)
Your task to perform on an android device: Clear the shopping cart on target. Search for "beats solo 3" on target, select the first entry, add it to the cart, then select checkout. Image 28: 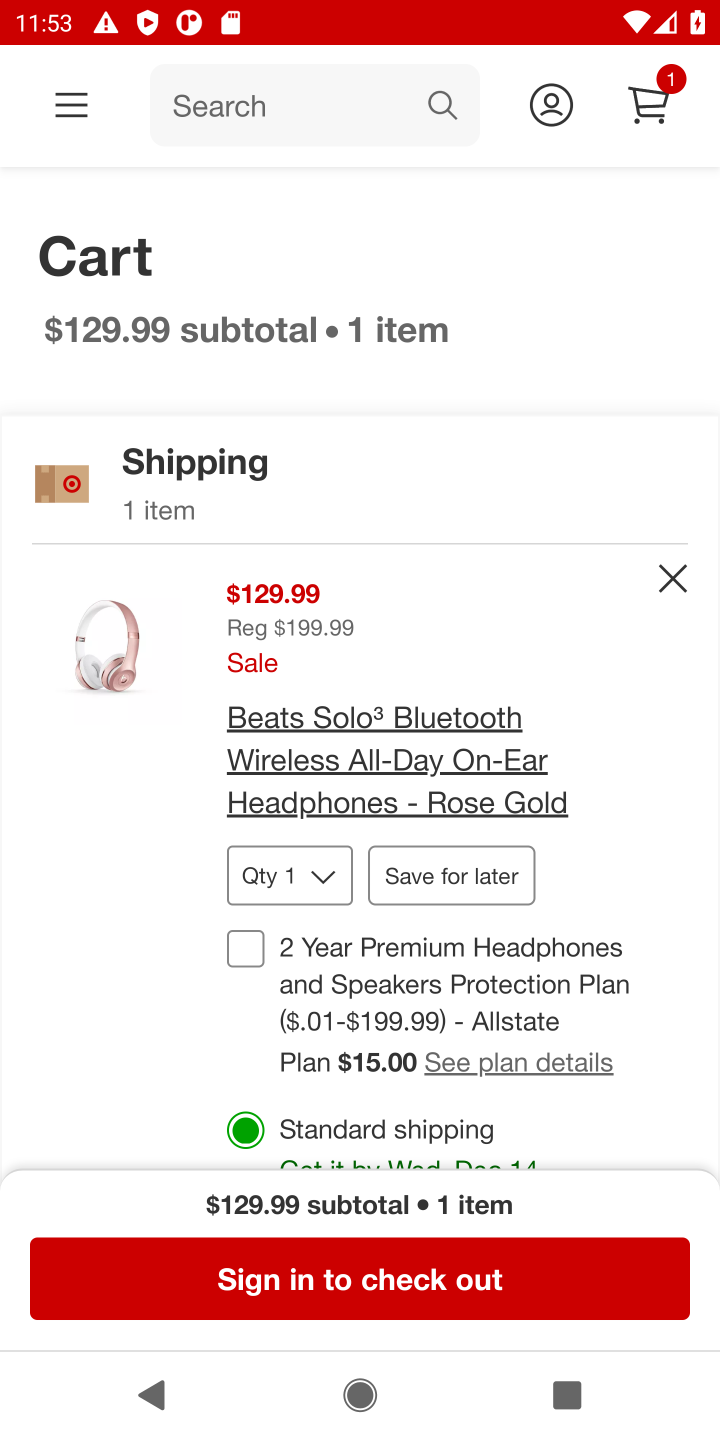
Step 28: click (439, 1262)
Your task to perform on an android device: Clear the shopping cart on target. Search for "beats solo 3" on target, select the first entry, add it to the cart, then select checkout. Image 29: 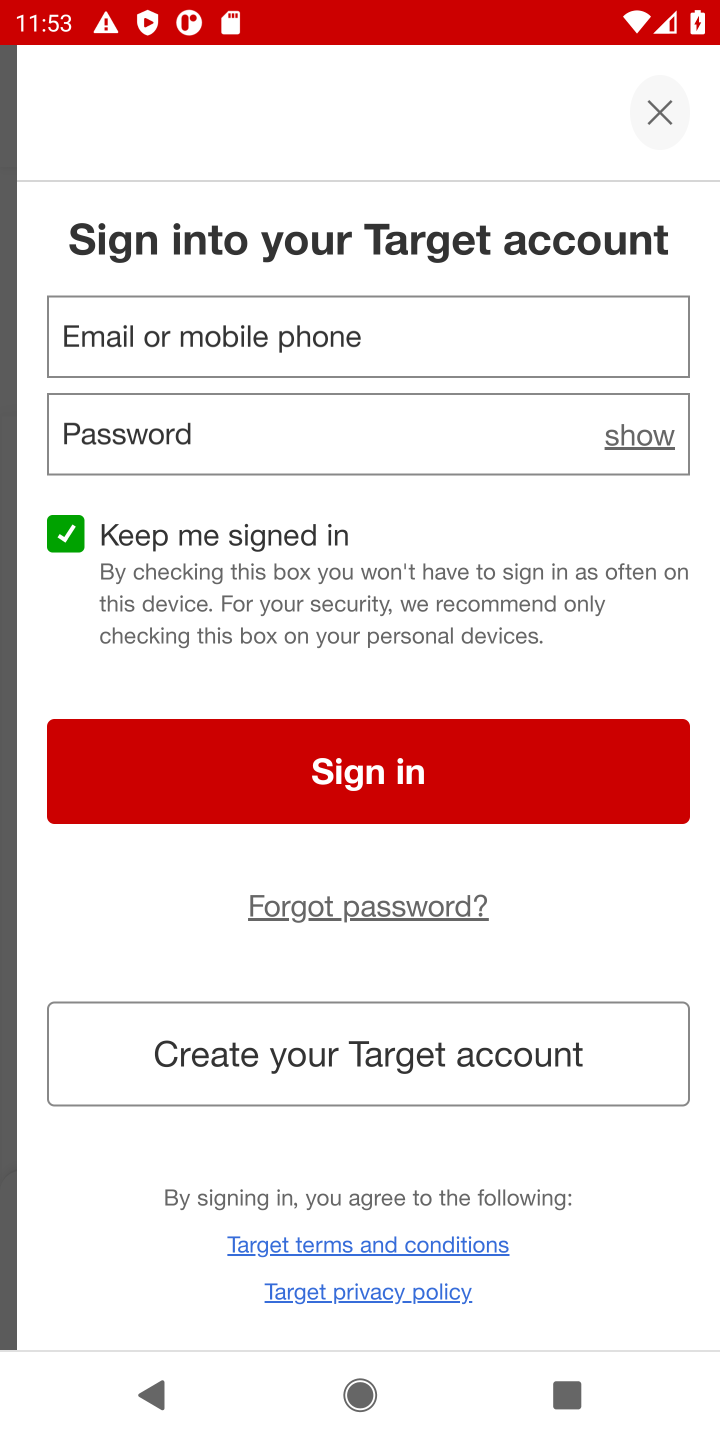
Step 29: task complete